Your task to perform on an android device: Search for rayovac triple a on amazon, select the first entry, and add it to the cart. Image 0: 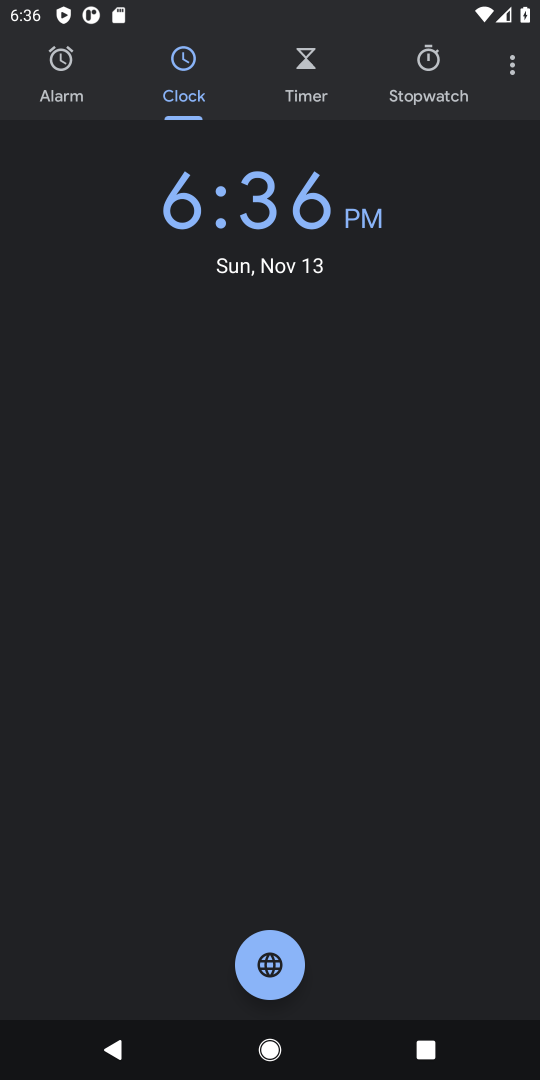
Step 0: press home button
Your task to perform on an android device: Search for rayovac triple a on amazon, select the first entry, and add it to the cart. Image 1: 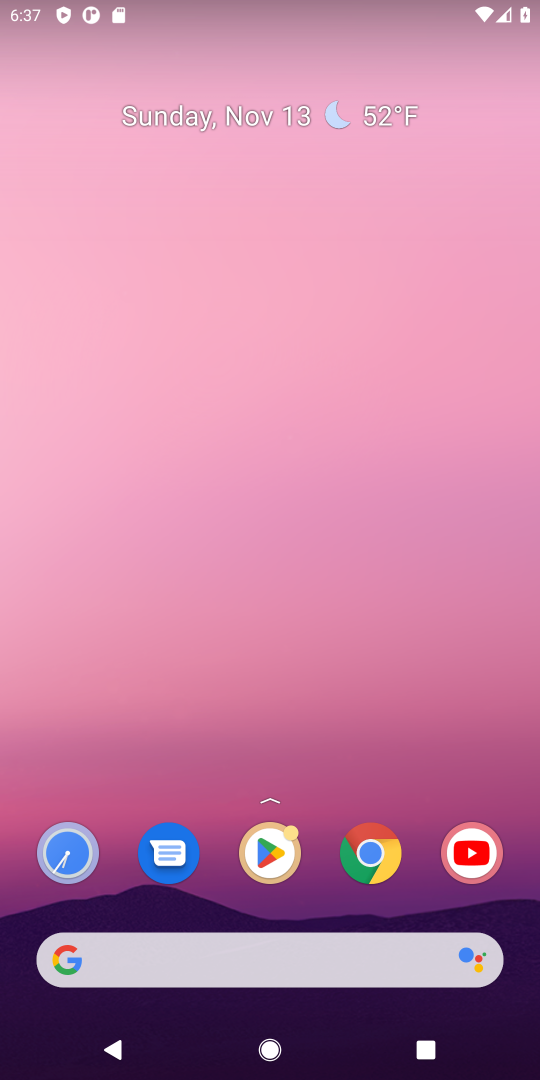
Step 1: click (98, 958)
Your task to perform on an android device: Search for rayovac triple a on amazon, select the first entry, and add it to the cart. Image 2: 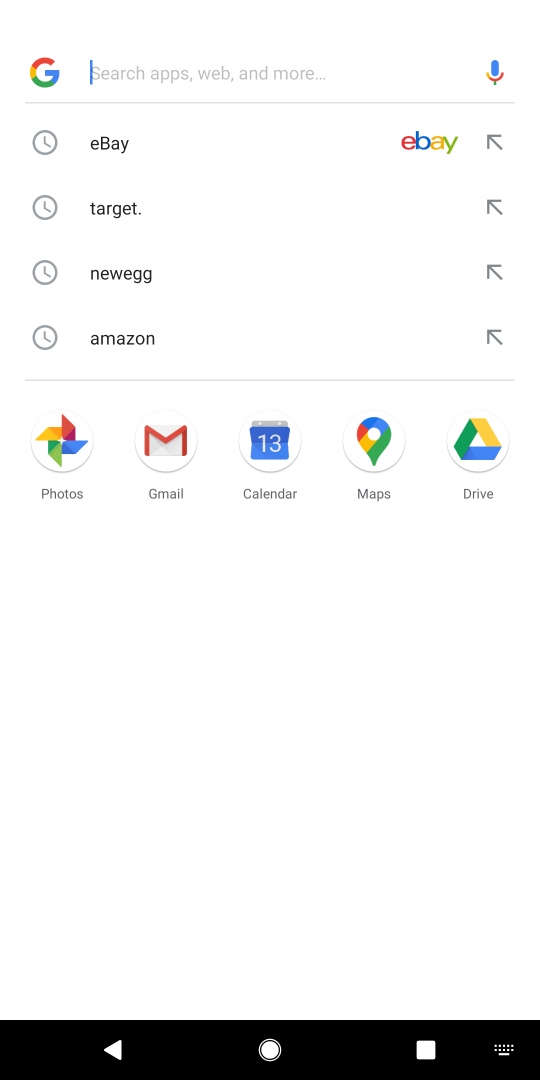
Step 2: type "amazon"
Your task to perform on an android device: Search for rayovac triple a on amazon, select the first entry, and add it to the cart. Image 3: 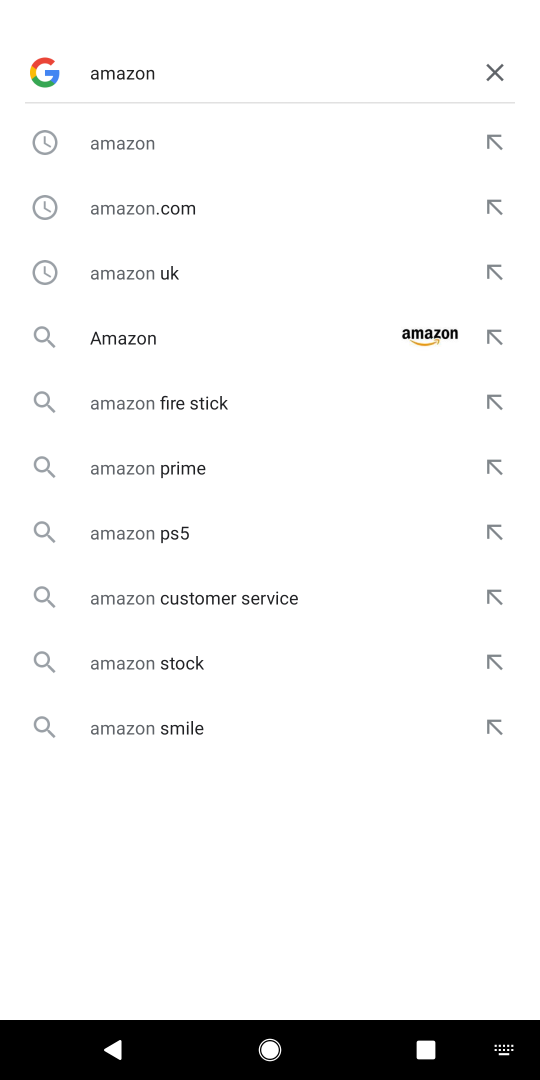
Step 3: press enter
Your task to perform on an android device: Search for rayovac triple a on amazon, select the first entry, and add it to the cart. Image 4: 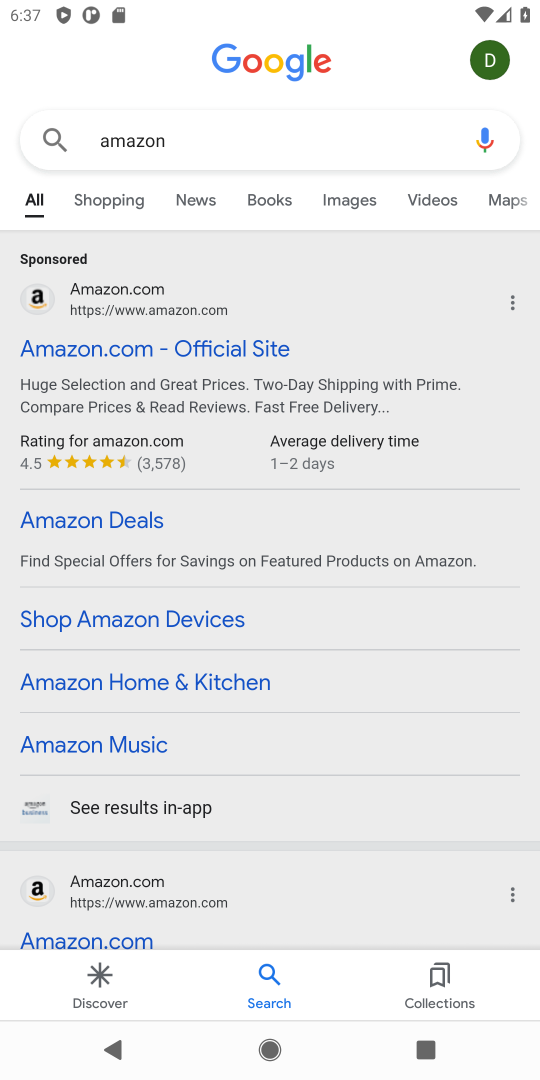
Step 4: click (115, 349)
Your task to perform on an android device: Search for rayovac triple a on amazon, select the first entry, and add it to the cart. Image 5: 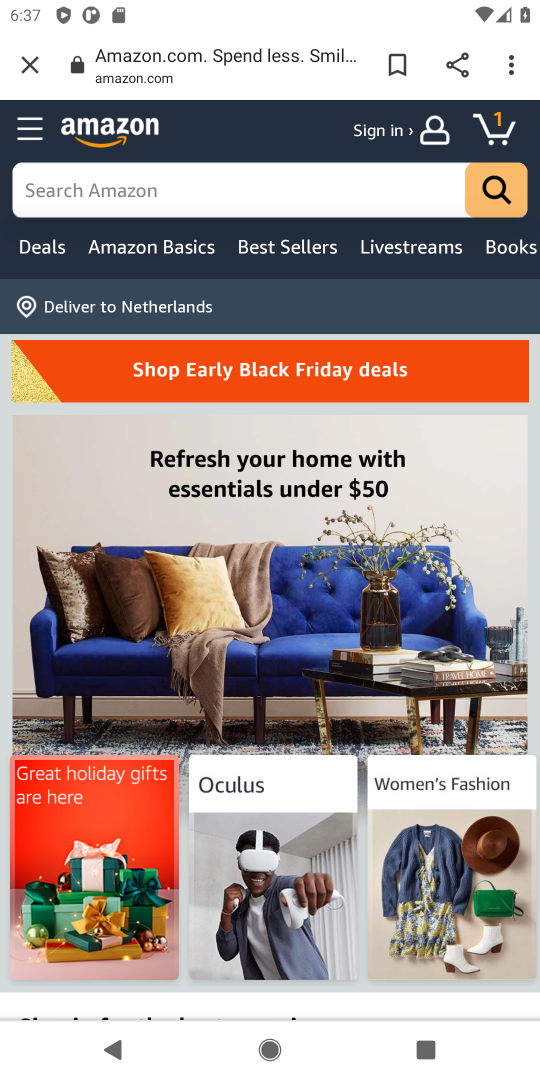
Step 5: click (55, 190)
Your task to perform on an android device: Search for rayovac triple a on amazon, select the first entry, and add it to the cart. Image 6: 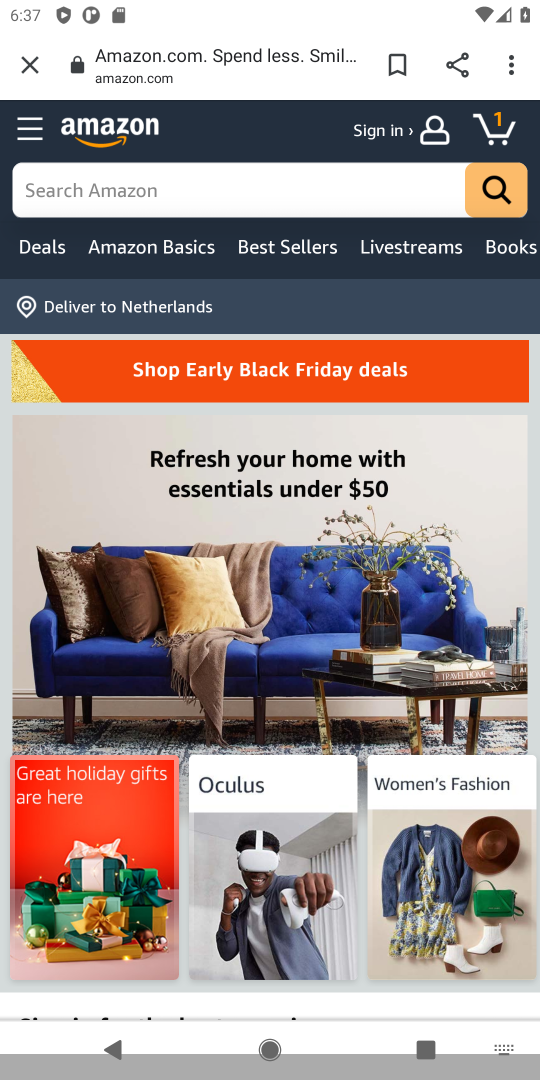
Step 6: click (55, 190)
Your task to perform on an android device: Search for rayovac triple a on amazon, select the first entry, and add it to the cart. Image 7: 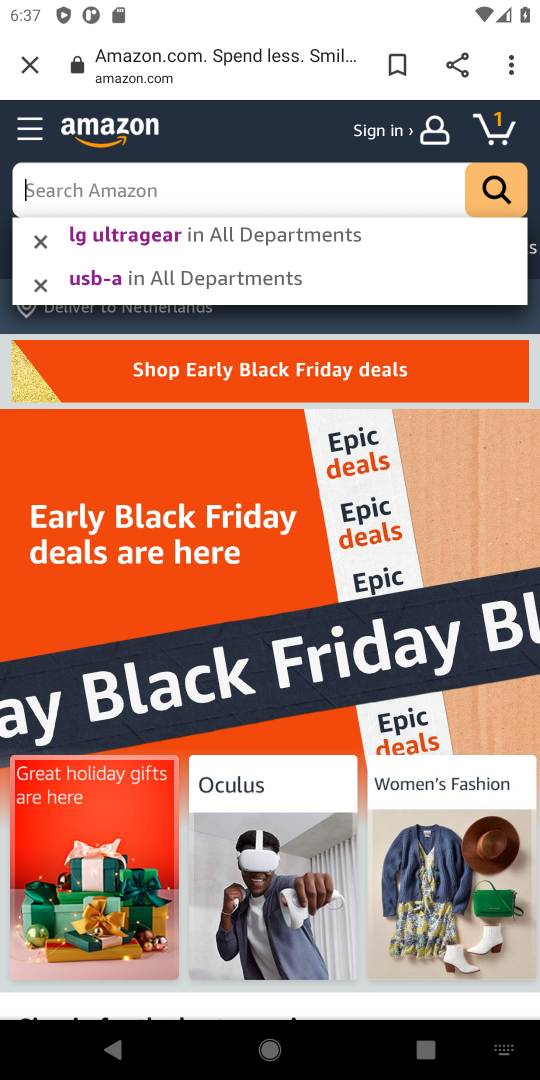
Step 7: press enter
Your task to perform on an android device: Search for rayovac triple a on amazon, select the first entry, and add it to the cart. Image 8: 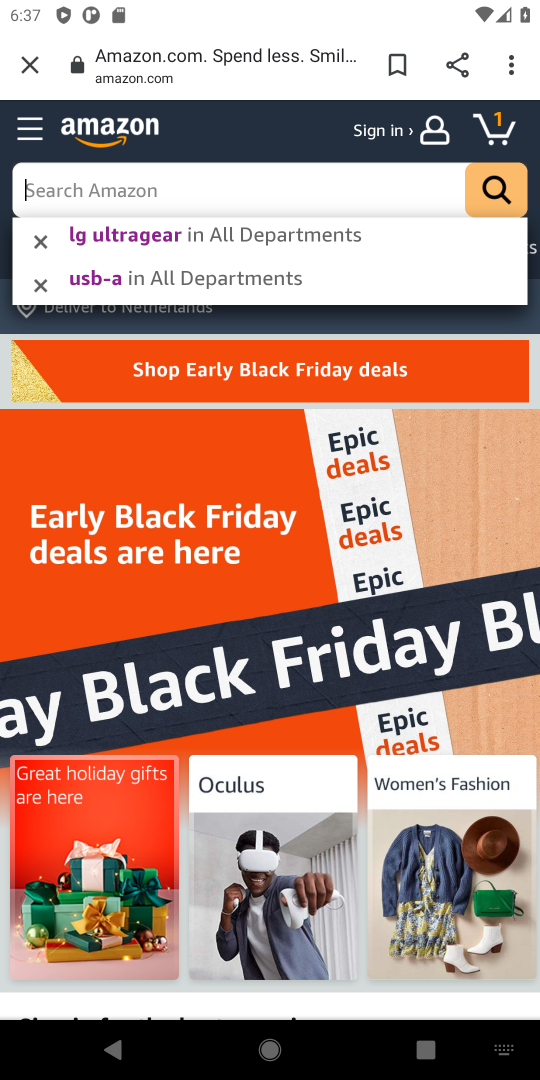
Step 8: type "rayovac triple a"
Your task to perform on an android device: Search for rayovac triple a on amazon, select the first entry, and add it to the cart. Image 9: 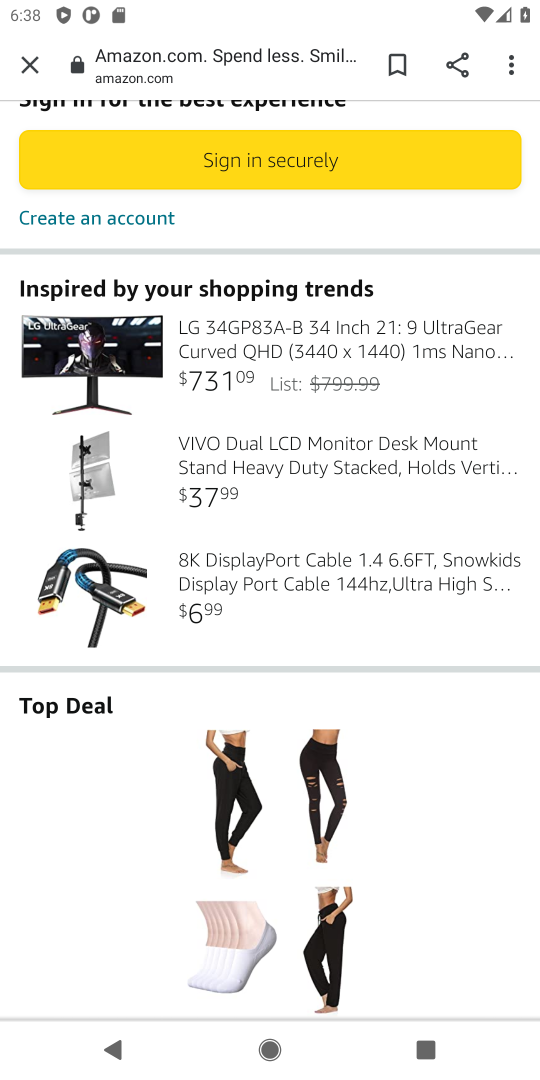
Step 9: task complete